Your task to perform on an android device: toggle improve location accuracy Image 0: 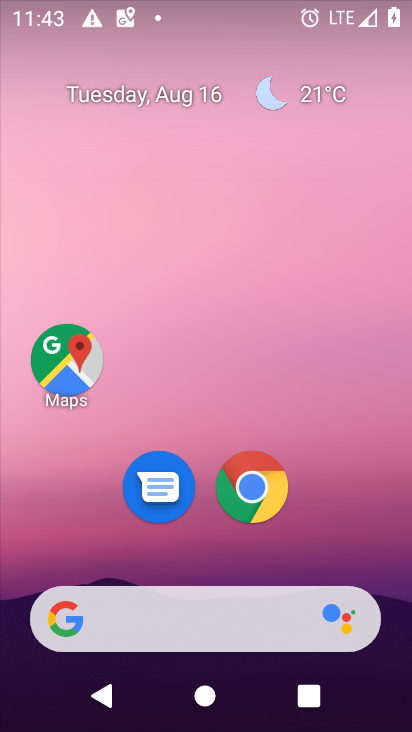
Step 0: drag from (179, 515) to (297, 6)
Your task to perform on an android device: toggle improve location accuracy Image 1: 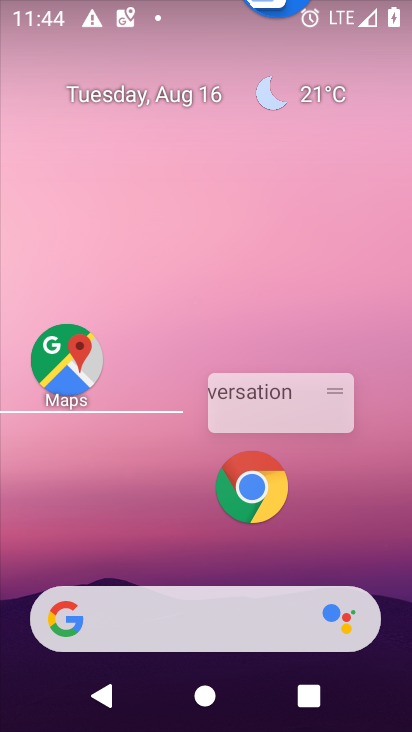
Step 1: click (190, 588)
Your task to perform on an android device: toggle improve location accuracy Image 2: 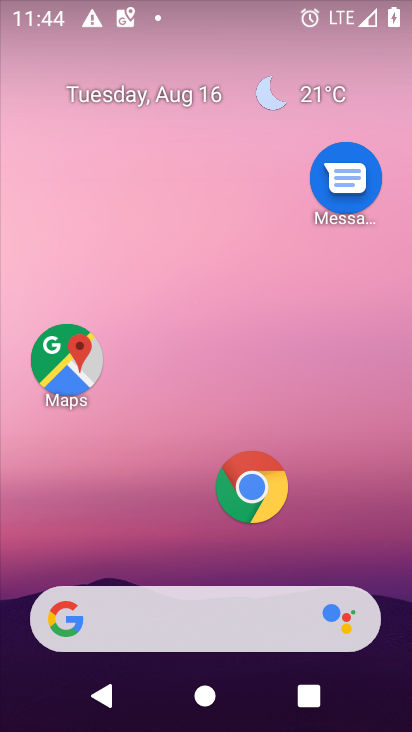
Step 2: drag from (175, 388) to (244, 4)
Your task to perform on an android device: toggle improve location accuracy Image 3: 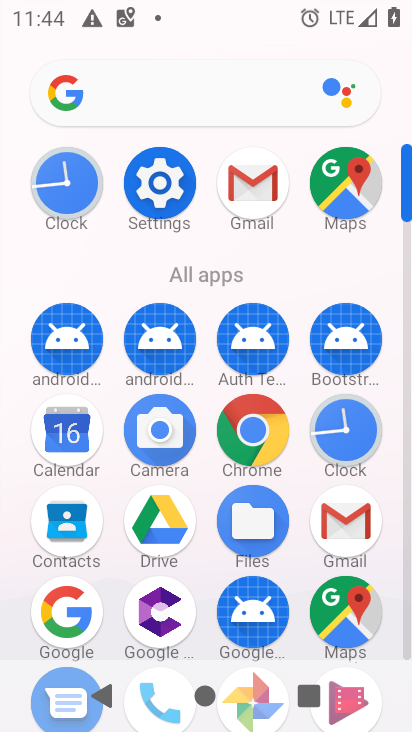
Step 3: click (151, 176)
Your task to perform on an android device: toggle improve location accuracy Image 4: 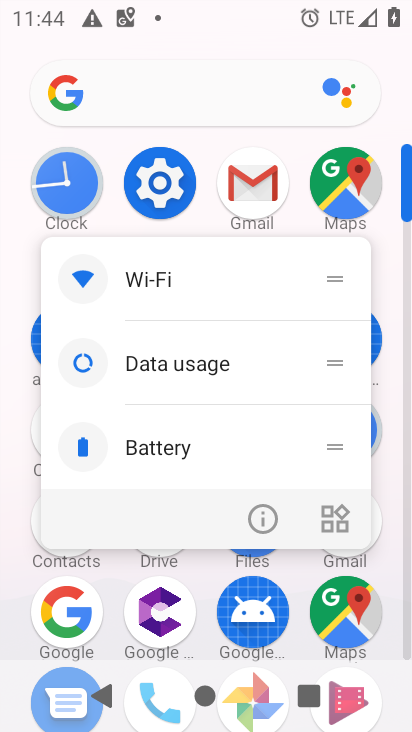
Step 4: click (166, 181)
Your task to perform on an android device: toggle improve location accuracy Image 5: 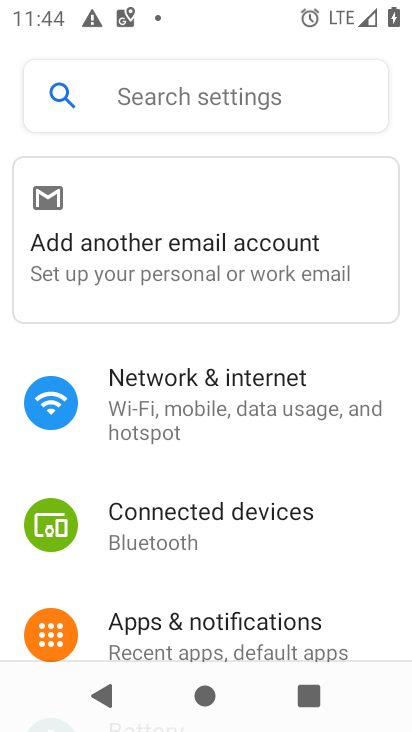
Step 5: drag from (217, 620) to (299, 47)
Your task to perform on an android device: toggle improve location accuracy Image 6: 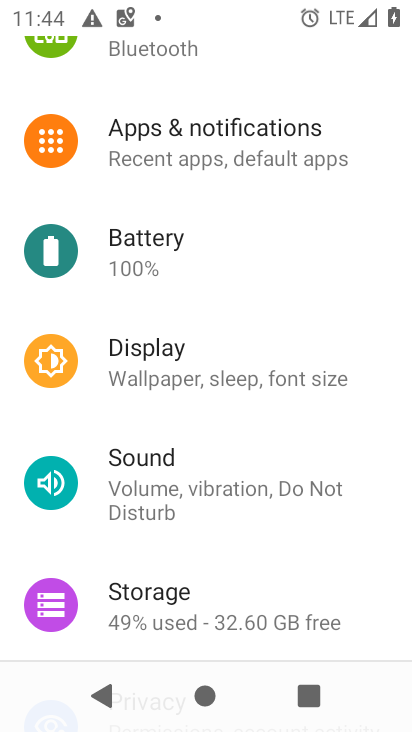
Step 6: drag from (171, 587) to (247, 161)
Your task to perform on an android device: toggle improve location accuracy Image 7: 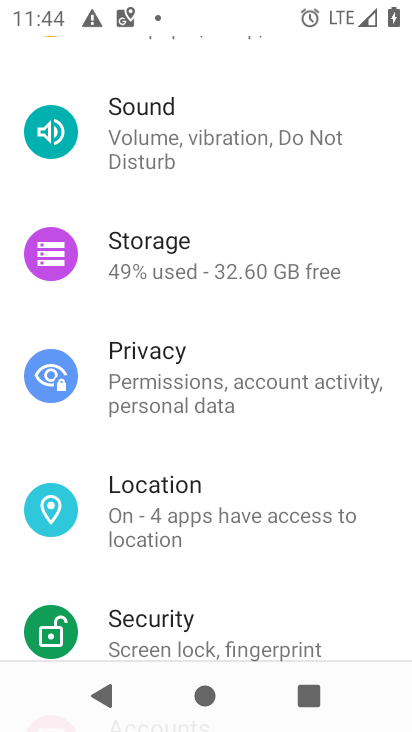
Step 7: click (162, 486)
Your task to perform on an android device: toggle improve location accuracy Image 8: 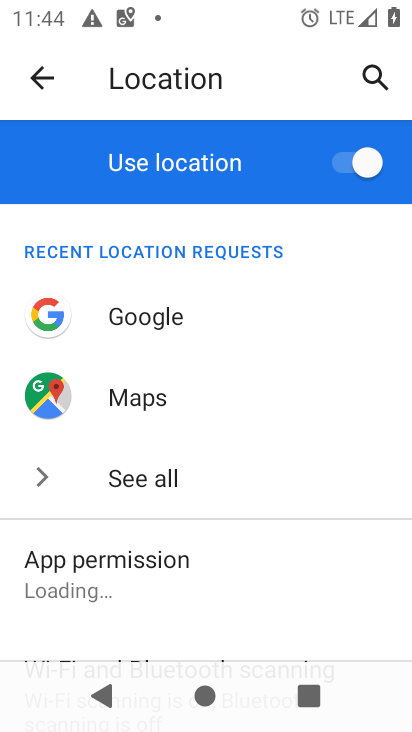
Step 8: drag from (220, 484) to (275, 157)
Your task to perform on an android device: toggle improve location accuracy Image 9: 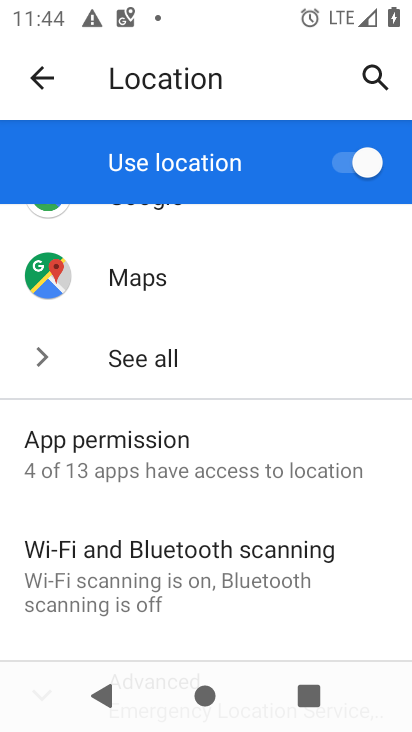
Step 9: drag from (260, 419) to (341, 94)
Your task to perform on an android device: toggle improve location accuracy Image 10: 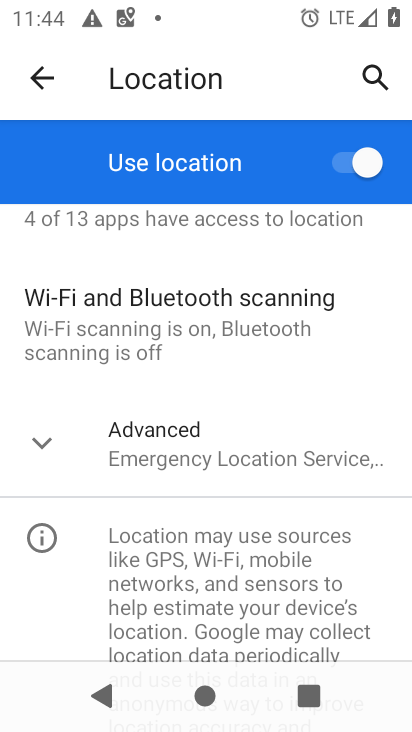
Step 10: click (248, 451)
Your task to perform on an android device: toggle improve location accuracy Image 11: 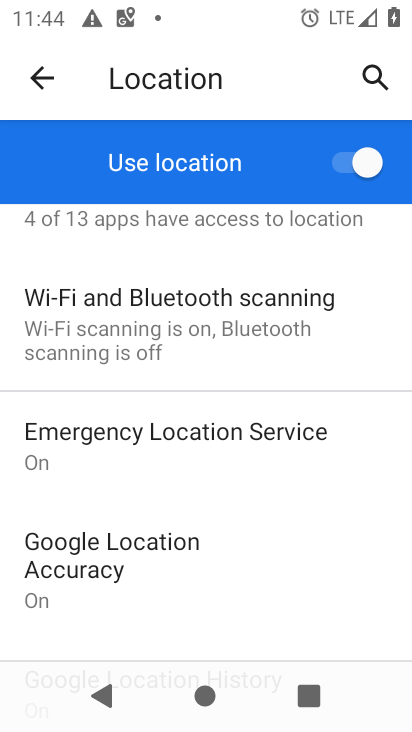
Step 11: drag from (160, 600) to (230, 370)
Your task to perform on an android device: toggle improve location accuracy Image 12: 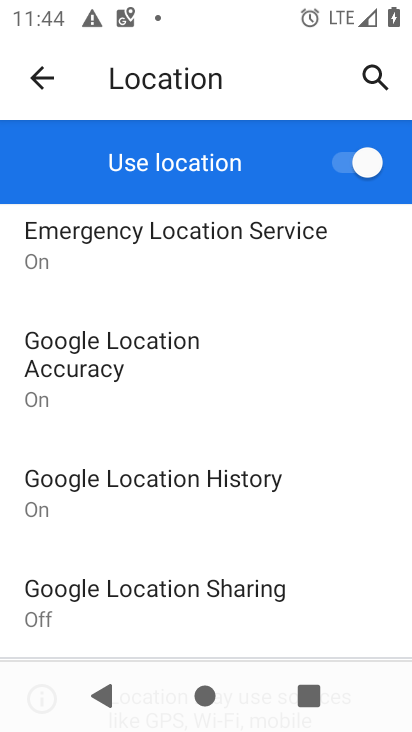
Step 12: click (218, 371)
Your task to perform on an android device: toggle improve location accuracy Image 13: 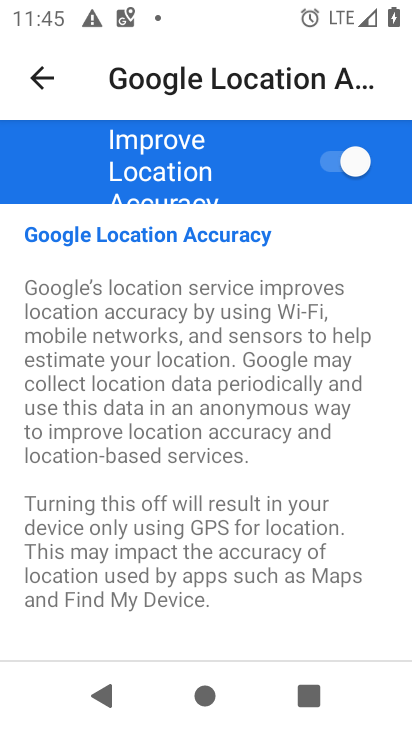
Step 13: click (358, 160)
Your task to perform on an android device: toggle improve location accuracy Image 14: 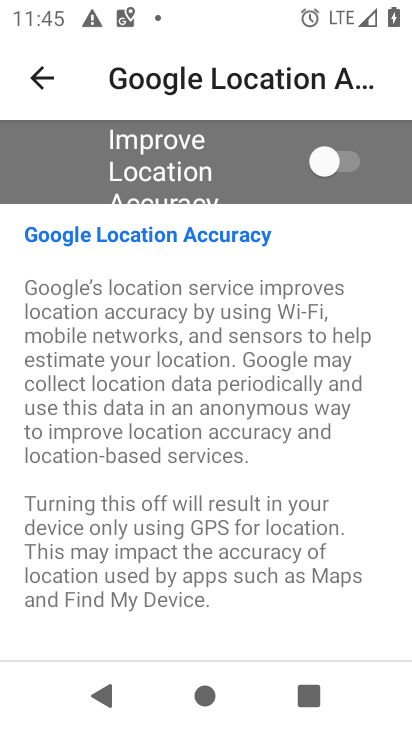
Step 14: task complete